Your task to perform on an android device: Searchfor good French restaurants Image 0: 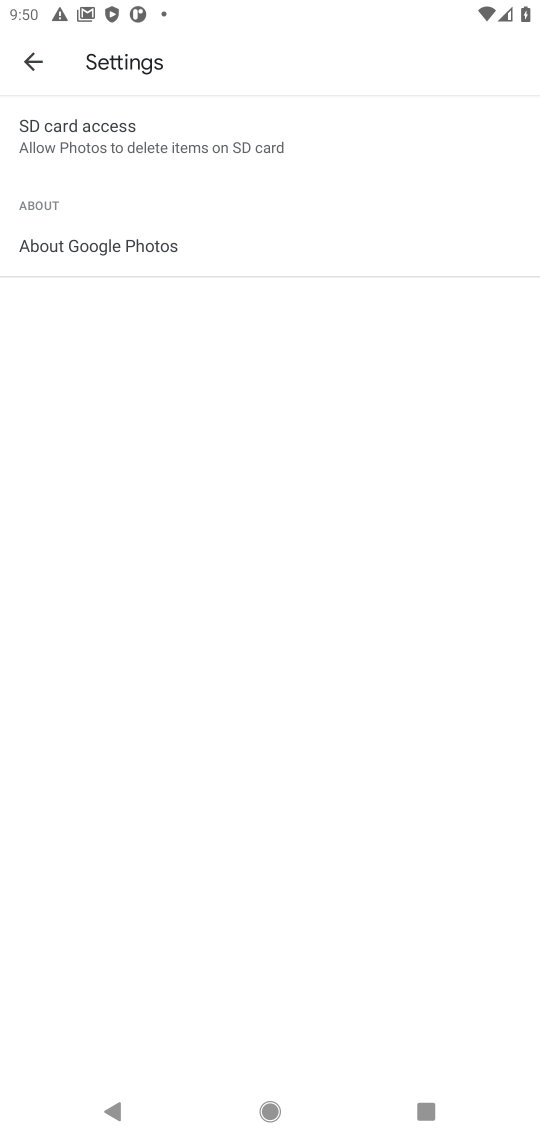
Step 0: press home button
Your task to perform on an android device: Searchfor good French restaurants Image 1: 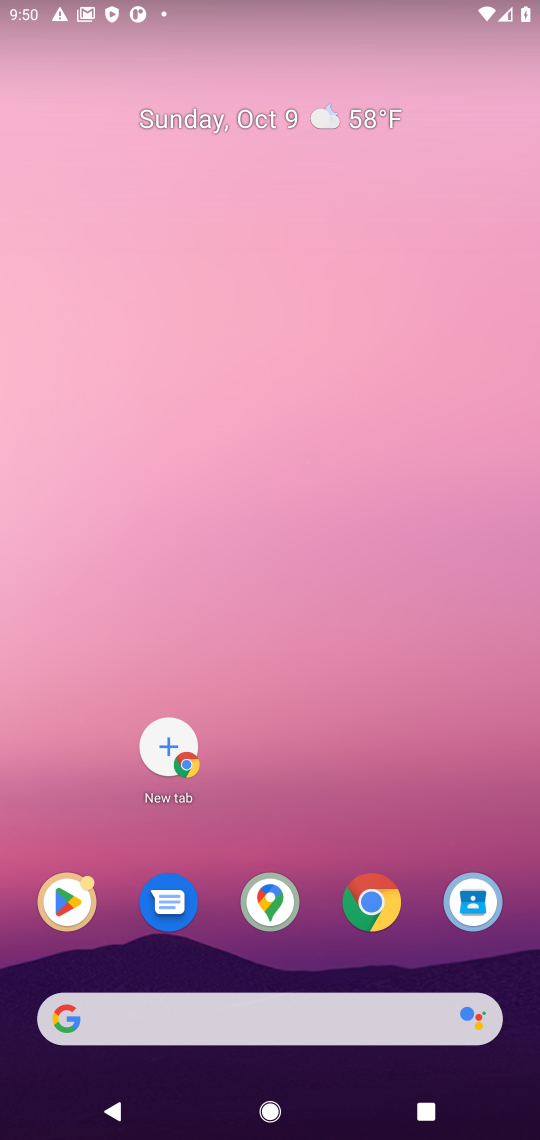
Step 1: click (379, 910)
Your task to perform on an android device: Searchfor good French restaurants Image 2: 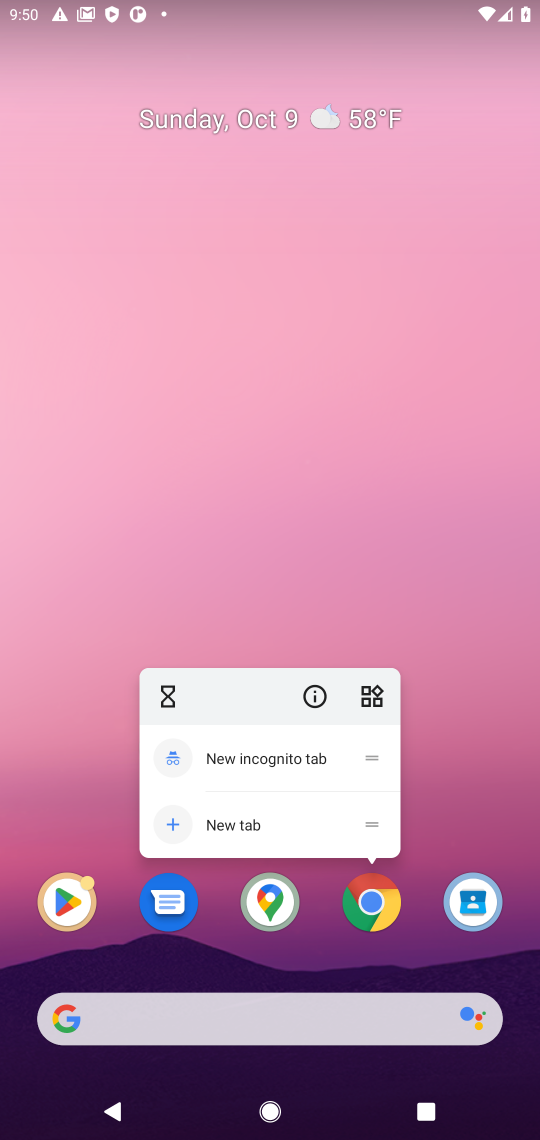
Step 2: click (417, 573)
Your task to perform on an android device: Searchfor good French restaurants Image 3: 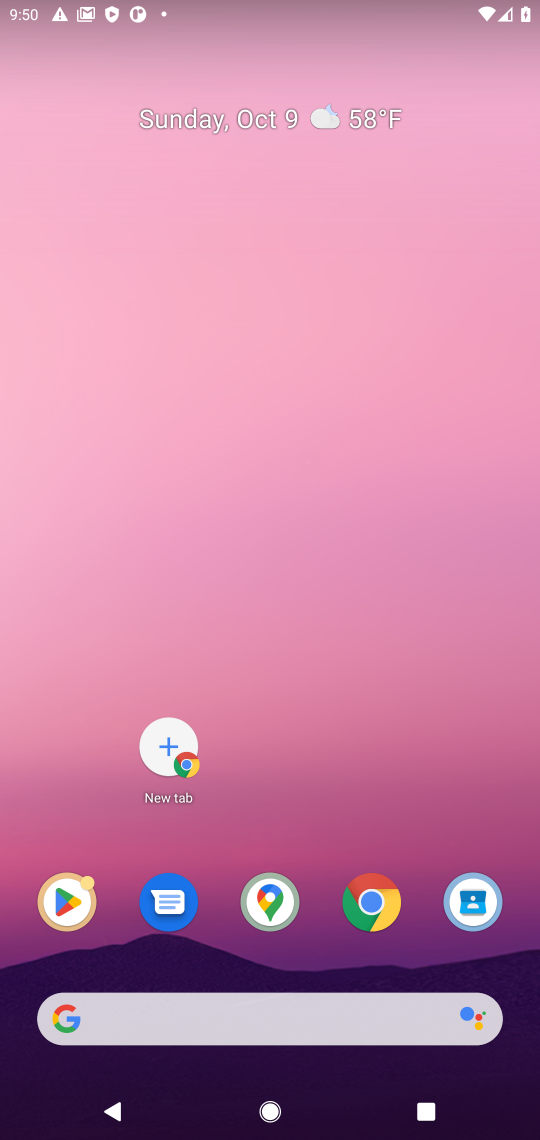
Step 3: click (370, 891)
Your task to perform on an android device: Searchfor good French restaurants Image 4: 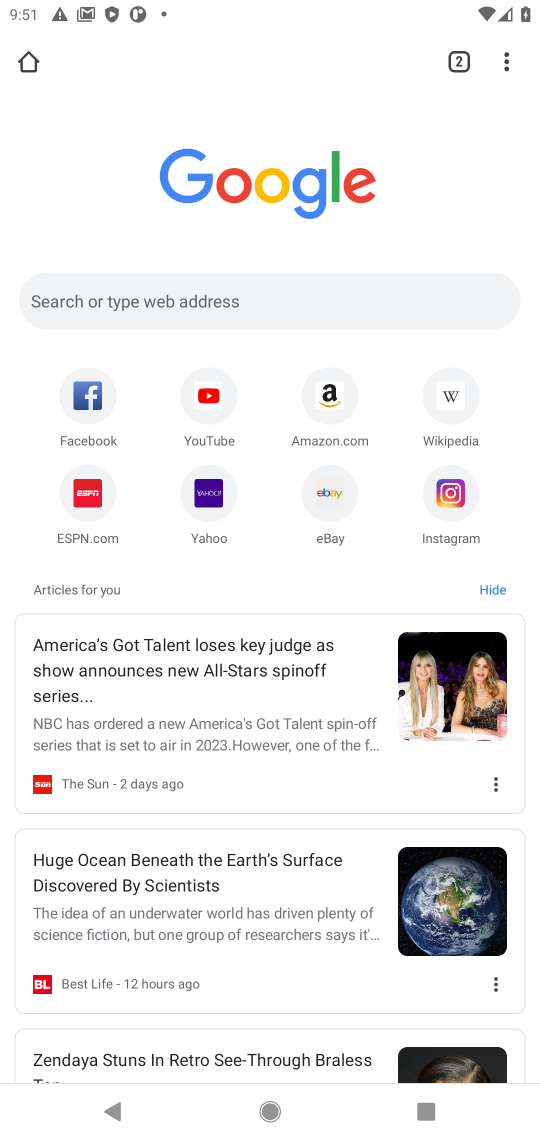
Step 4: click (290, 308)
Your task to perform on an android device: Searchfor good French restaurants Image 5: 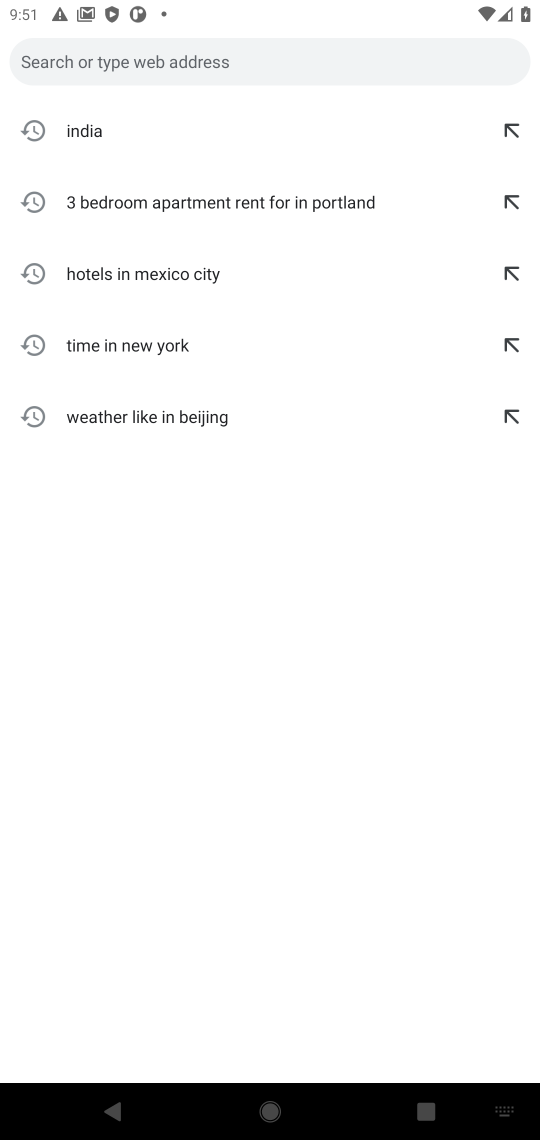
Step 5: type "good French restaurants"
Your task to perform on an android device: Searchfor good French restaurants Image 6: 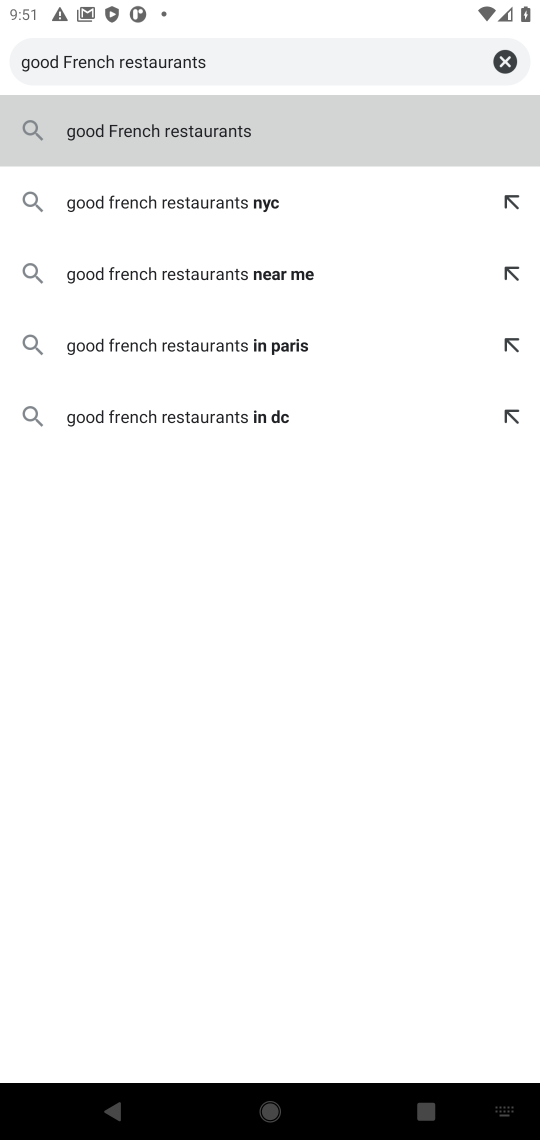
Step 6: click (191, 144)
Your task to perform on an android device: Searchfor good French restaurants Image 7: 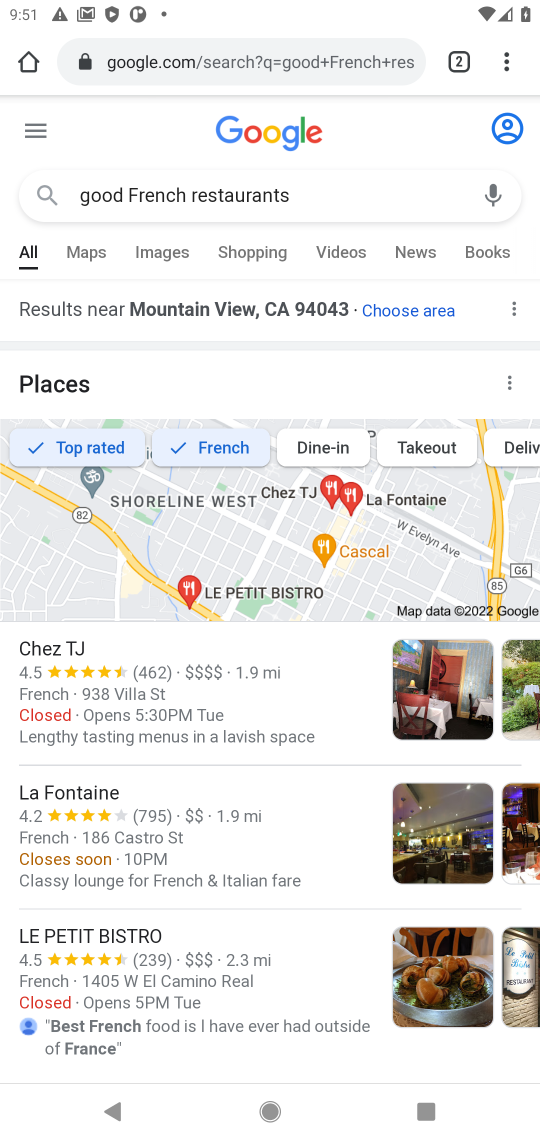
Step 7: drag from (296, 765) to (289, 538)
Your task to perform on an android device: Searchfor good French restaurants Image 8: 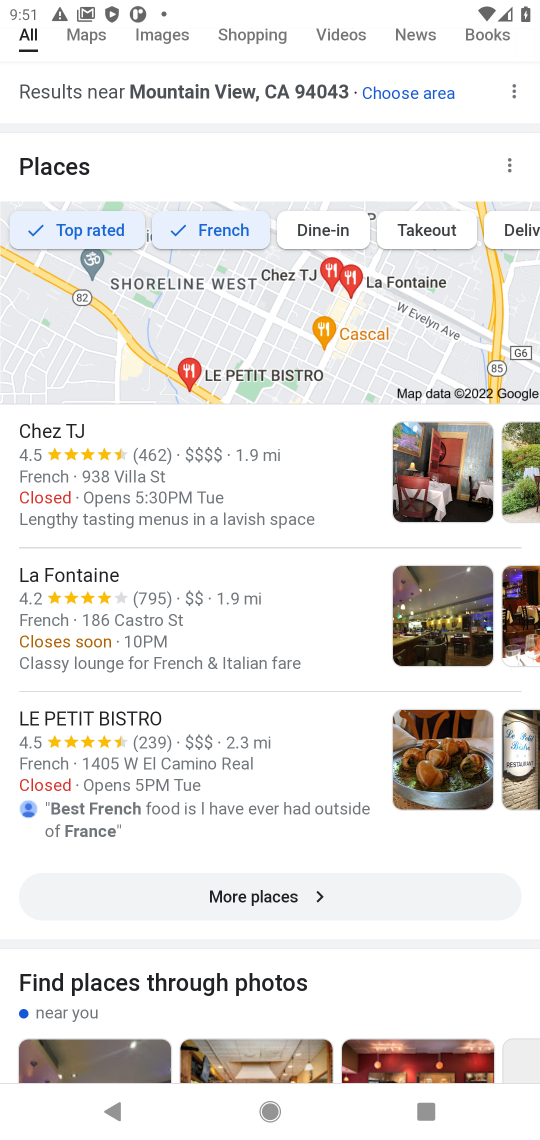
Step 8: click (269, 900)
Your task to perform on an android device: Searchfor good French restaurants Image 9: 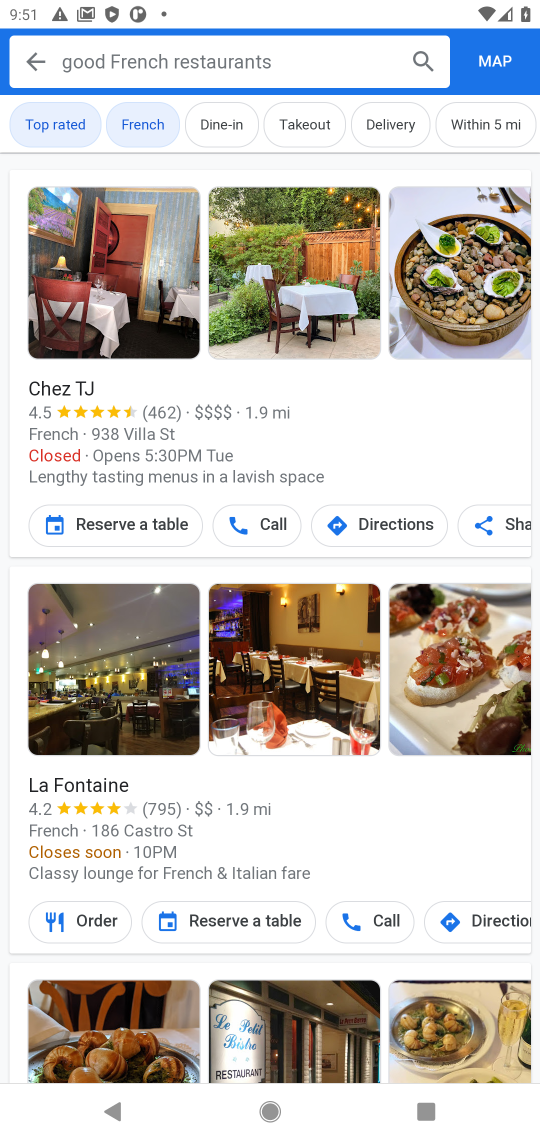
Step 9: task complete